Your task to perform on an android device: make emails show in primary in the gmail app Image 0: 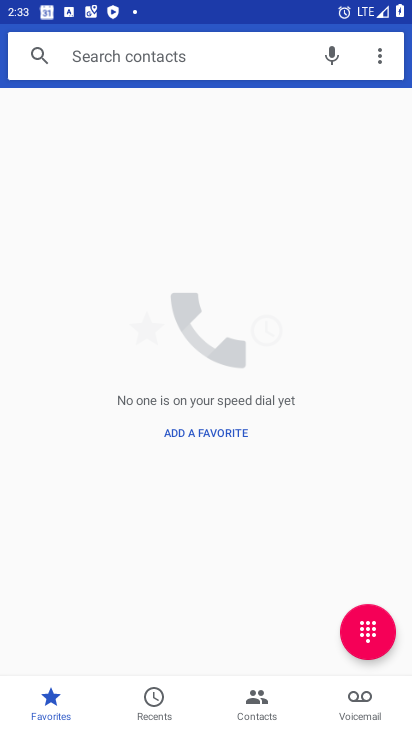
Step 0: press home button
Your task to perform on an android device: make emails show in primary in the gmail app Image 1: 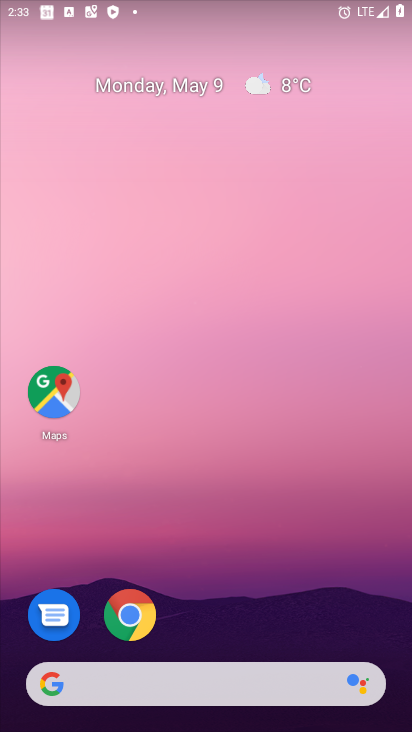
Step 1: drag from (349, 634) to (371, 14)
Your task to perform on an android device: make emails show in primary in the gmail app Image 2: 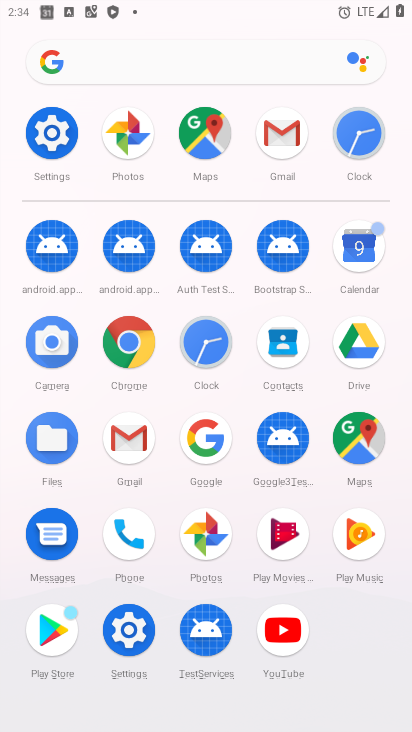
Step 2: click (125, 442)
Your task to perform on an android device: make emails show in primary in the gmail app Image 3: 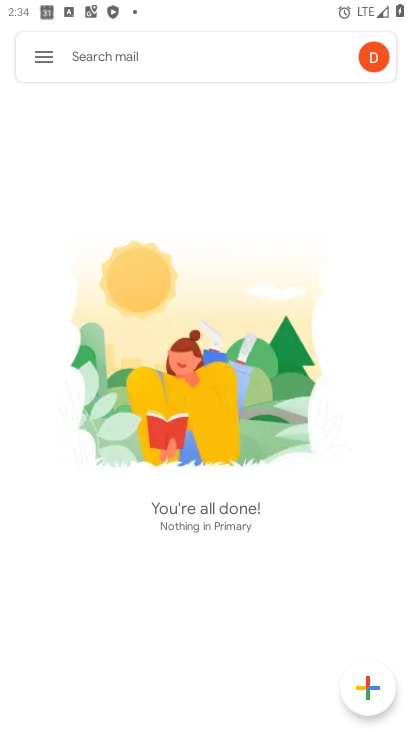
Step 3: click (39, 59)
Your task to perform on an android device: make emails show in primary in the gmail app Image 4: 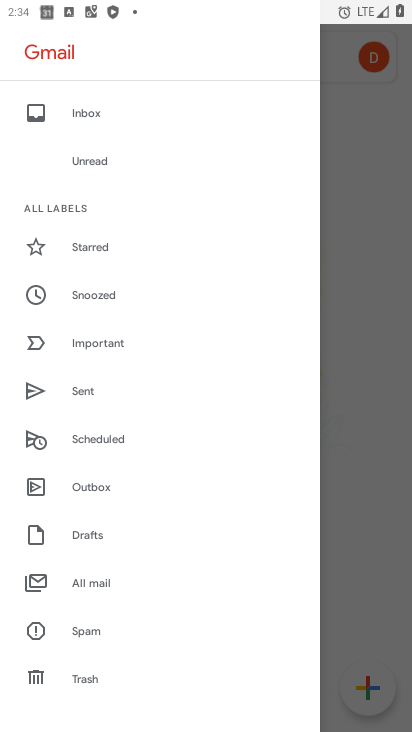
Step 4: drag from (156, 609) to (183, 275)
Your task to perform on an android device: make emails show in primary in the gmail app Image 5: 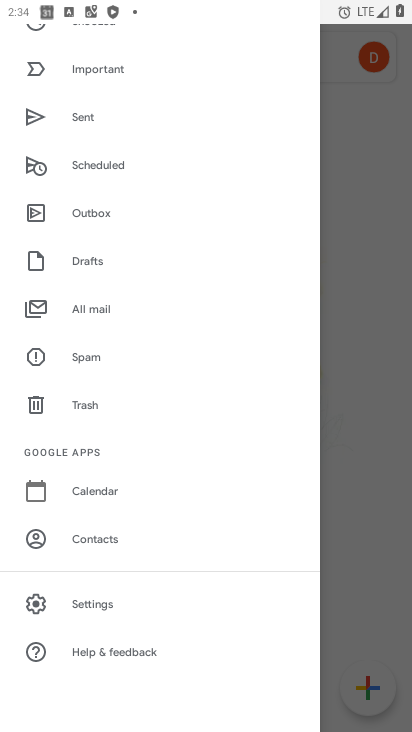
Step 5: click (97, 599)
Your task to perform on an android device: make emails show in primary in the gmail app Image 6: 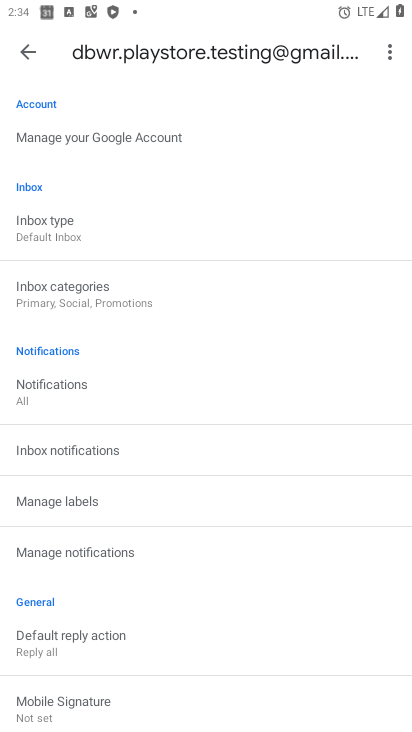
Step 6: click (61, 228)
Your task to perform on an android device: make emails show in primary in the gmail app Image 7: 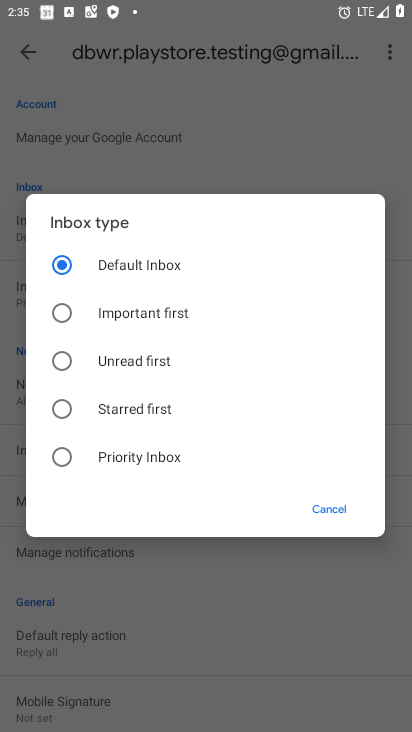
Step 7: click (56, 455)
Your task to perform on an android device: make emails show in primary in the gmail app Image 8: 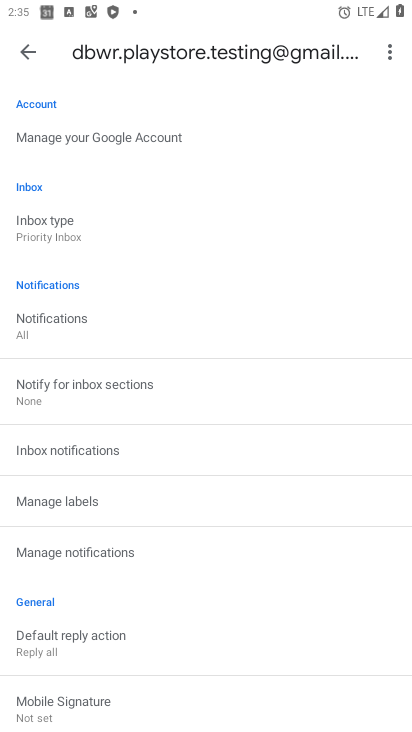
Step 8: click (38, 235)
Your task to perform on an android device: make emails show in primary in the gmail app Image 9: 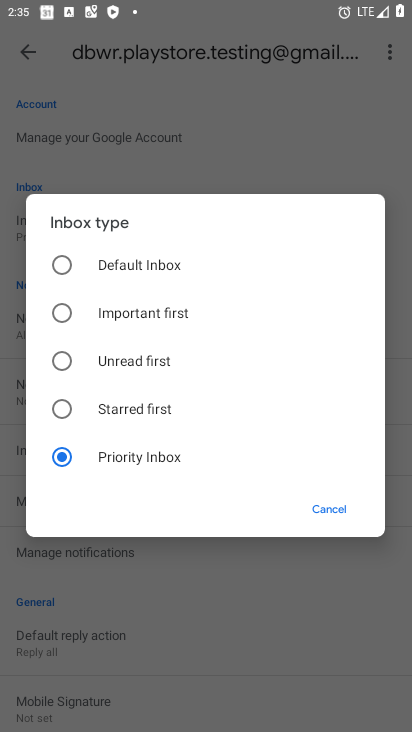
Step 9: click (56, 266)
Your task to perform on an android device: make emails show in primary in the gmail app Image 10: 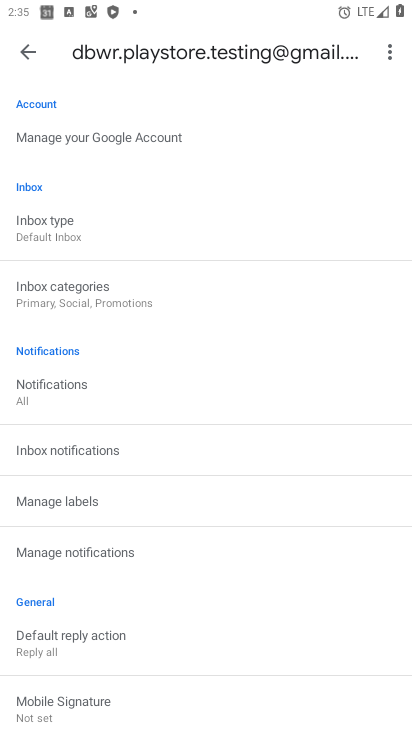
Step 10: click (58, 287)
Your task to perform on an android device: make emails show in primary in the gmail app Image 11: 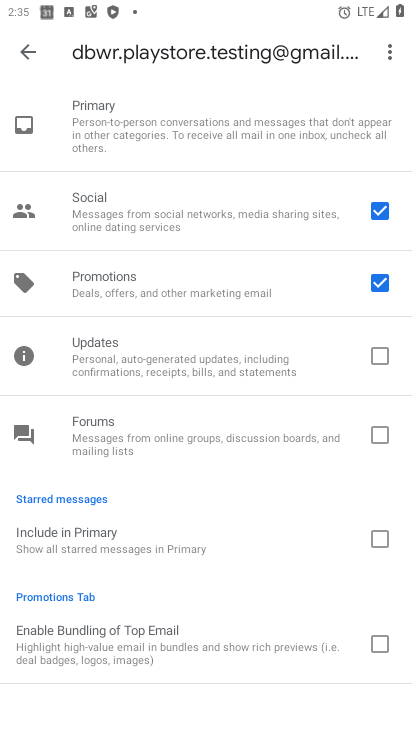
Step 11: click (379, 281)
Your task to perform on an android device: make emails show in primary in the gmail app Image 12: 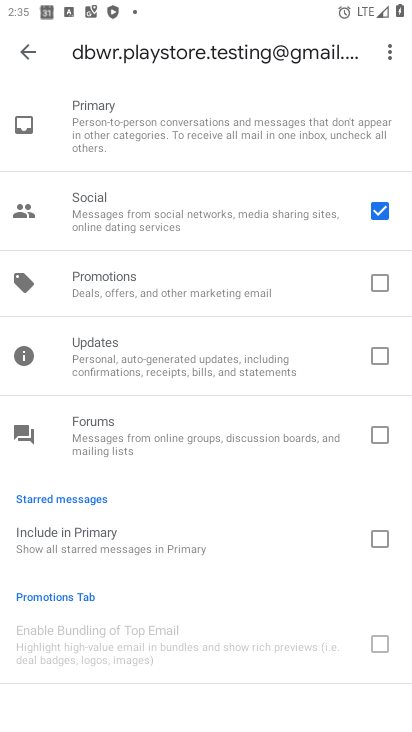
Step 12: click (376, 202)
Your task to perform on an android device: make emails show in primary in the gmail app Image 13: 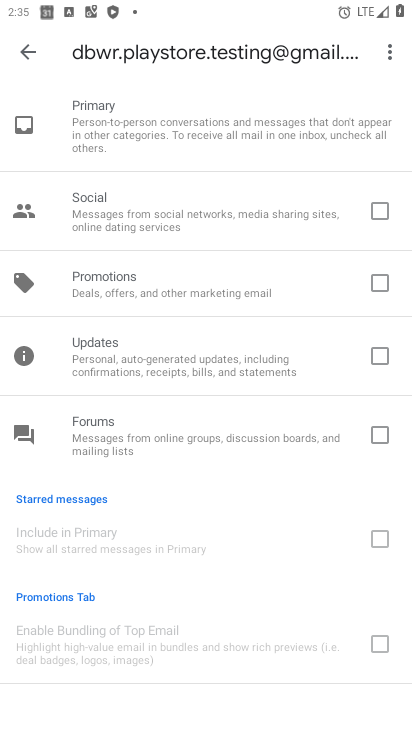
Step 13: task complete